Your task to perform on an android device: check storage Image 0: 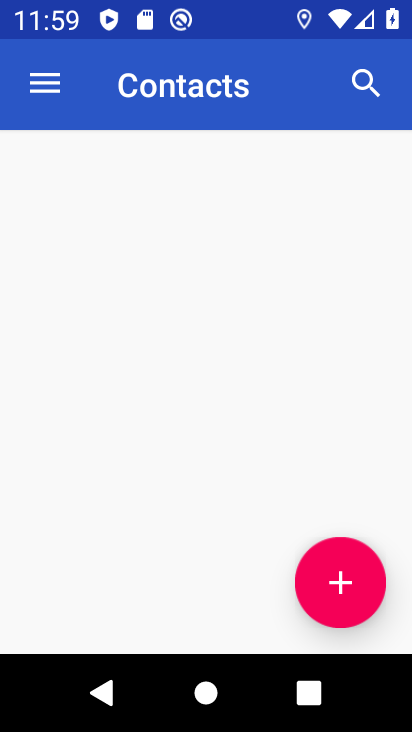
Step 0: drag from (372, 506) to (329, 115)
Your task to perform on an android device: check storage Image 1: 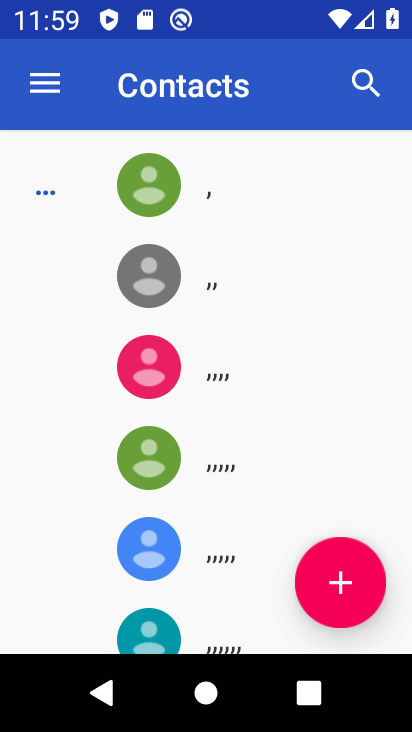
Step 1: press home button
Your task to perform on an android device: check storage Image 2: 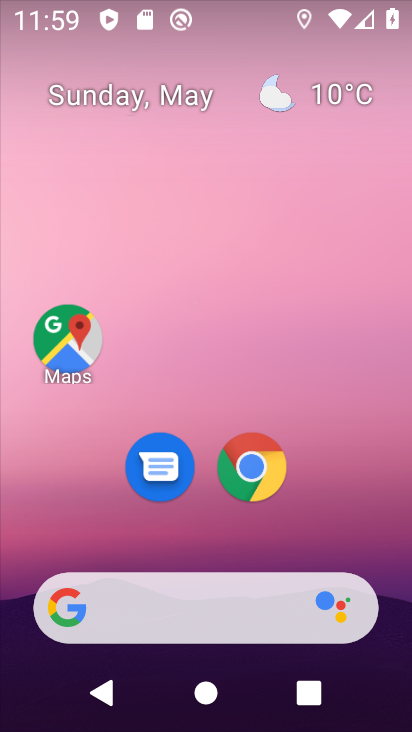
Step 2: drag from (354, 541) to (364, 100)
Your task to perform on an android device: check storage Image 3: 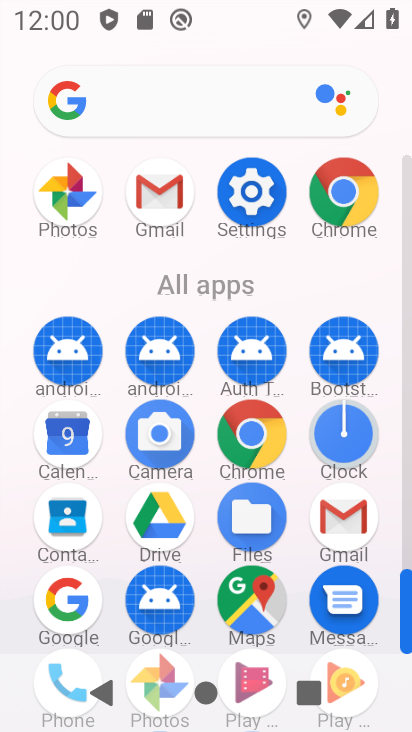
Step 3: click (257, 190)
Your task to perform on an android device: check storage Image 4: 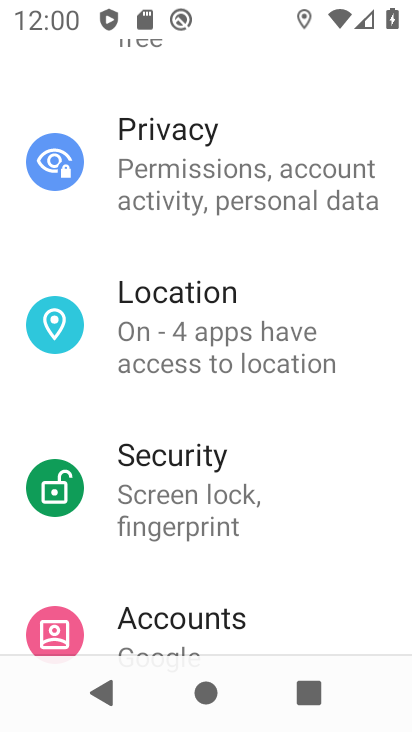
Step 4: drag from (255, 219) to (250, 478)
Your task to perform on an android device: check storage Image 5: 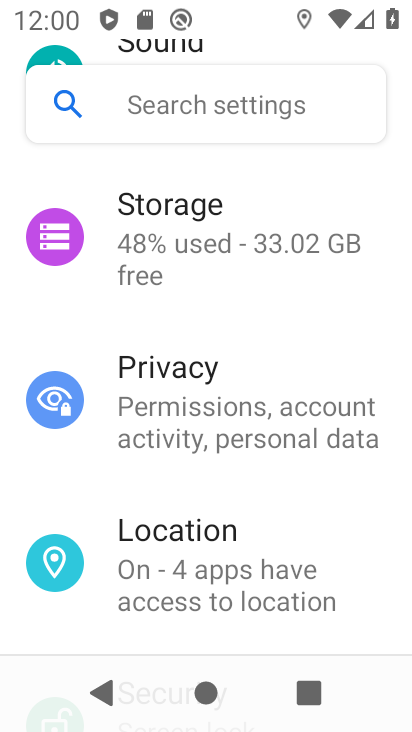
Step 5: click (224, 239)
Your task to perform on an android device: check storage Image 6: 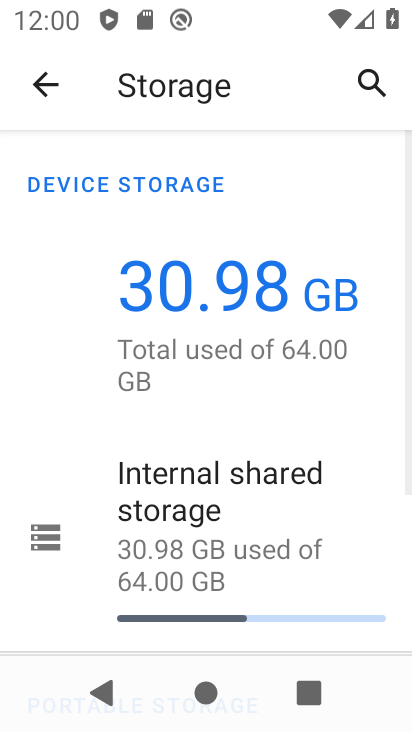
Step 6: click (36, 570)
Your task to perform on an android device: check storage Image 7: 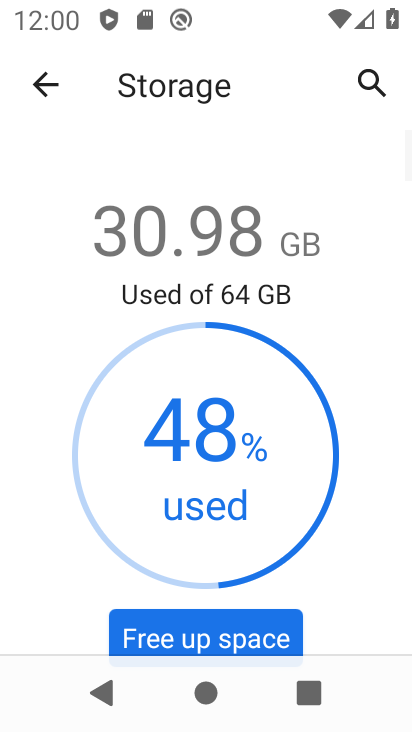
Step 7: task complete